Your task to perform on an android device: visit the assistant section in the google photos Image 0: 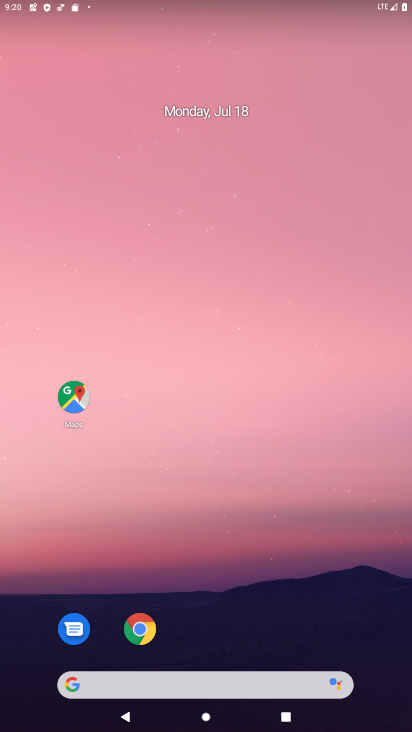
Step 0: drag from (258, 599) to (247, 150)
Your task to perform on an android device: visit the assistant section in the google photos Image 1: 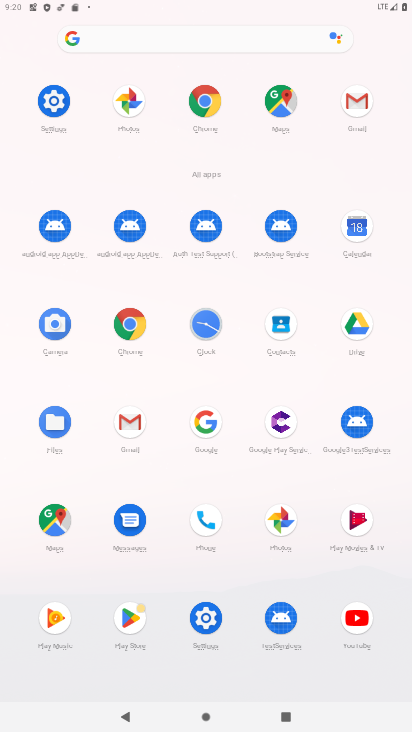
Step 1: click (285, 522)
Your task to perform on an android device: visit the assistant section in the google photos Image 2: 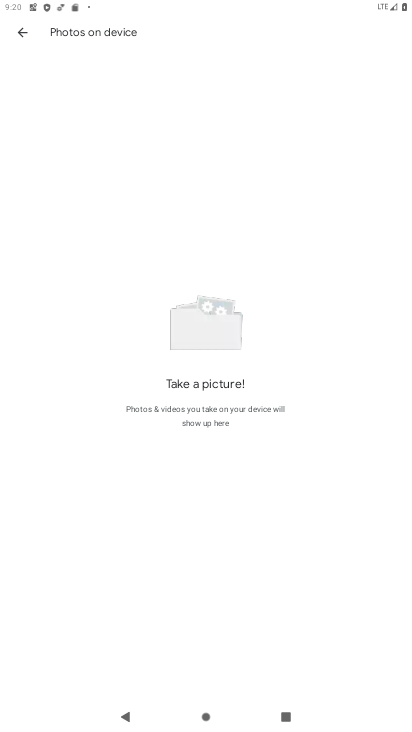
Step 2: click (21, 32)
Your task to perform on an android device: visit the assistant section in the google photos Image 3: 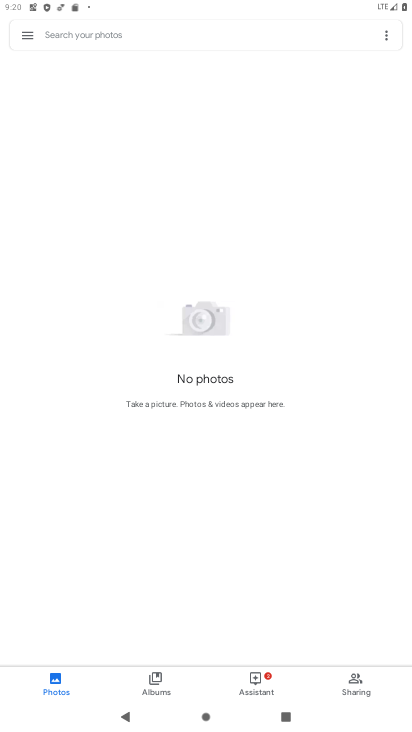
Step 3: click (262, 683)
Your task to perform on an android device: visit the assistant section in the google photos Image 4: 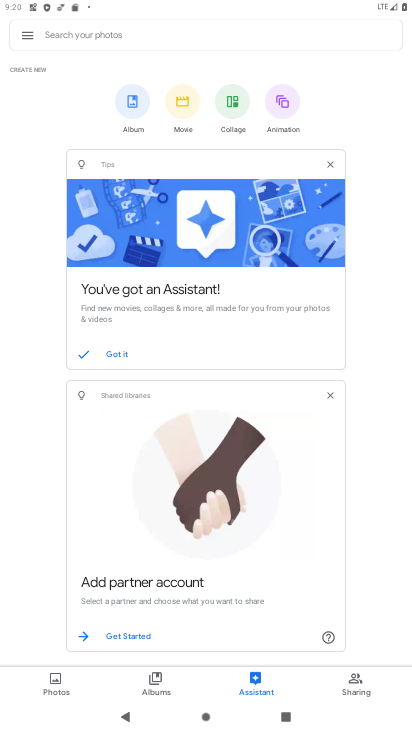
Step 4: task complete